Your task to perform on an android device: Go to notification settings Image 0: 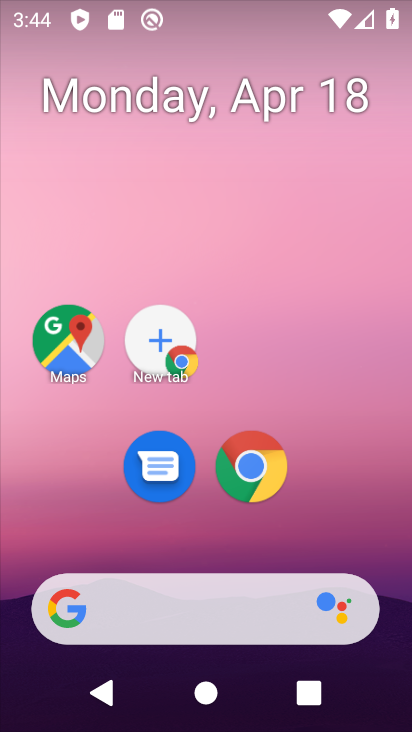
Step 0: drag from (391, 608) to (305, 6)
Your task to perform on an android device: Go to notification settings Image 1: 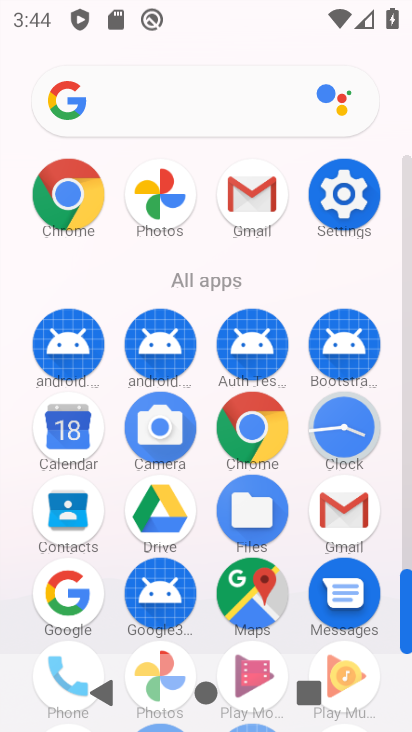
Step 1: click (5, 248)
Your task to perform on an android device: Go to notification settings Image 2: 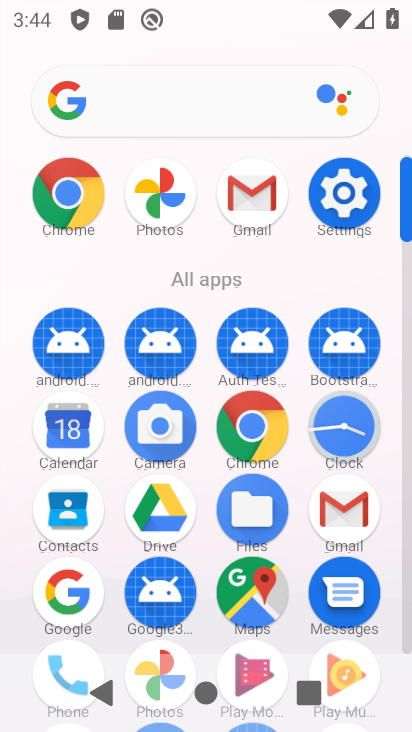
Step 2: click (345, 190)
Your task to perform on an android device: Go to notification settings Image 3: 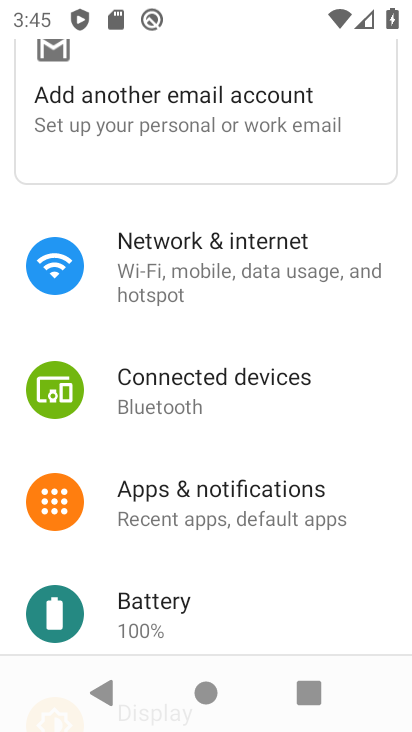
Step 3: click (280, 506)
Your task to perform on an android device: Go to notification settings Image 4: 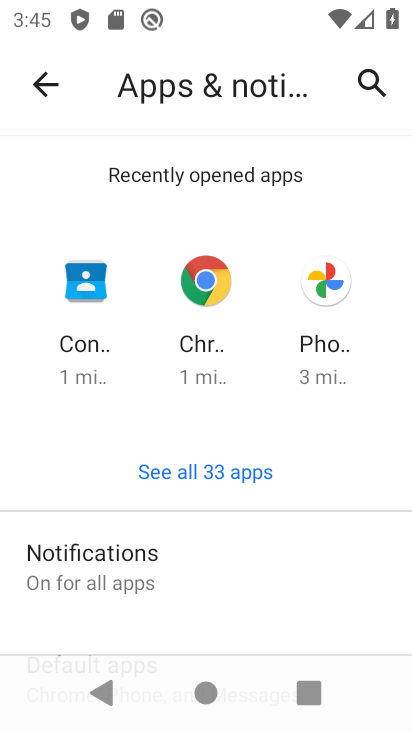
Step 4: drag from (280, 560) to (275, 203)
Your task to perform on an android device: Go to notification settings Image 5: 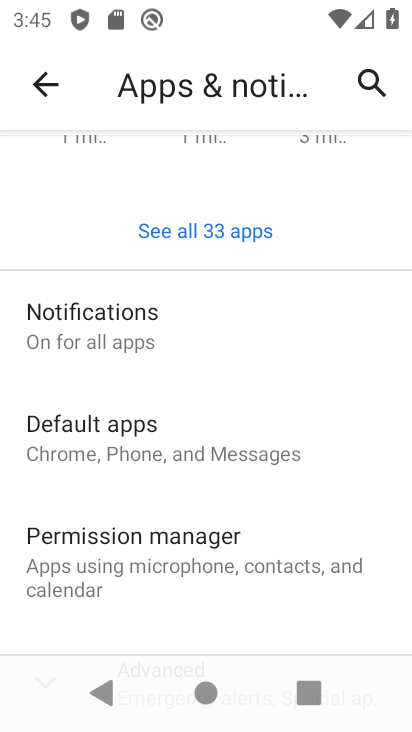
Step 5: click (158, 330)
Your task to perform on an android device: Go to notification settings Image 6: 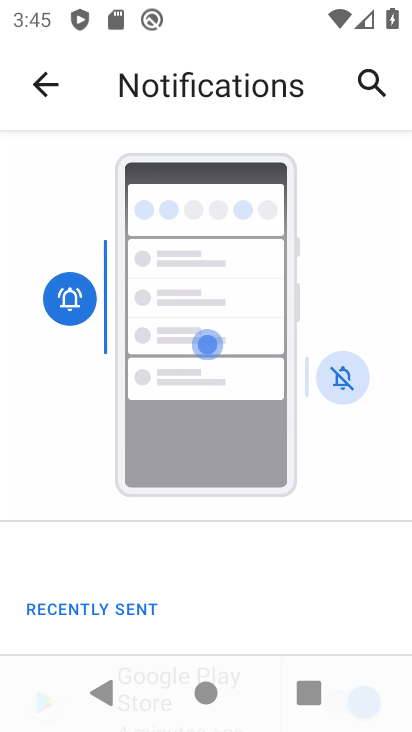
Step 6: drag from (234, 613) to (221, 231)
Your task to perform on an android device: Go to notification settings Image 7: 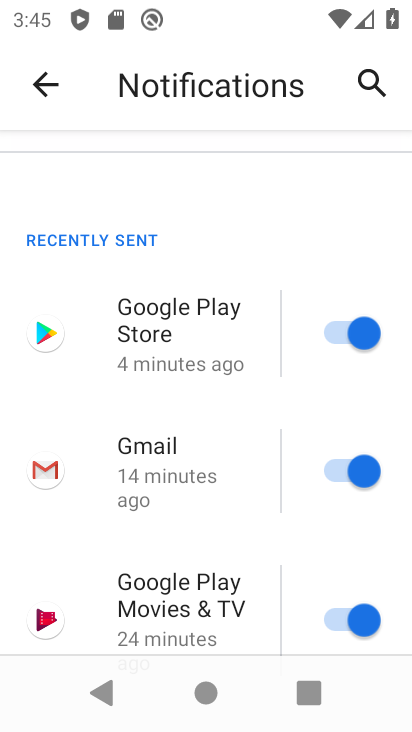
Step 7: drag from (246, 492) to (229, 163)
Your task to perform on an android device: Go to notification settings Image 8: 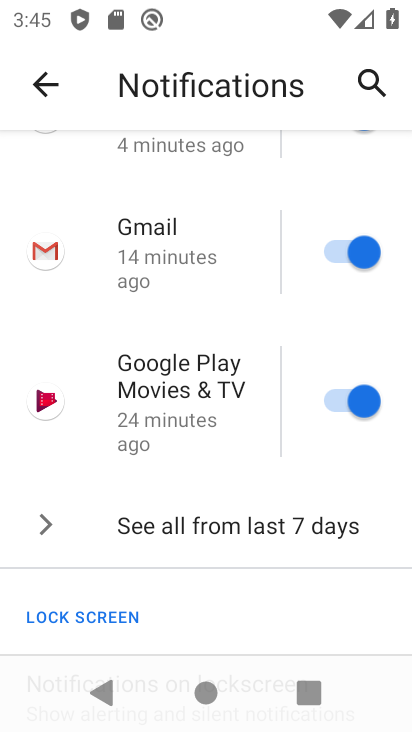
Step 8: drag from (223, 404) to (231, 150)
Your task to perform on an android device: Go to notification settings Image 9: 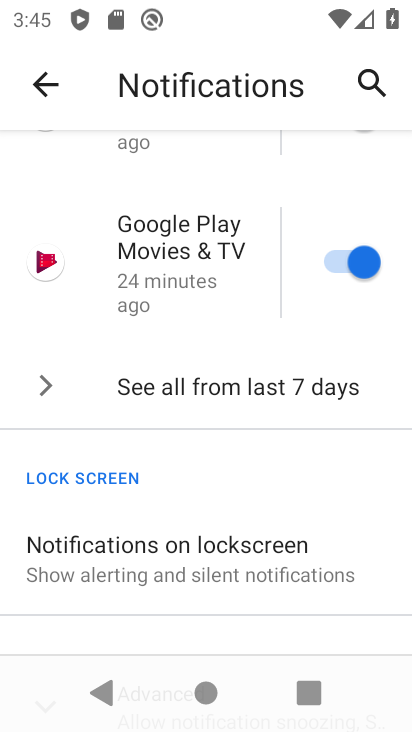
Step 9: drag from (234, 545) to (206, 317)
Your task to perform on an android device: Go to notification settings Image 10: 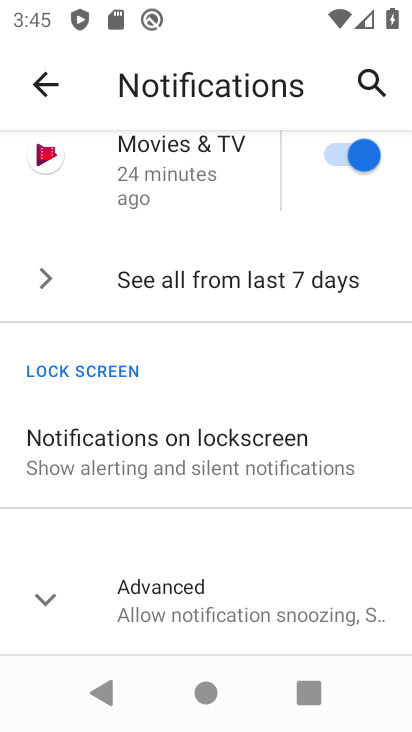
Step 10: click (40, 608)
Your task to perform on an android device: Go to notification settings Image 11: 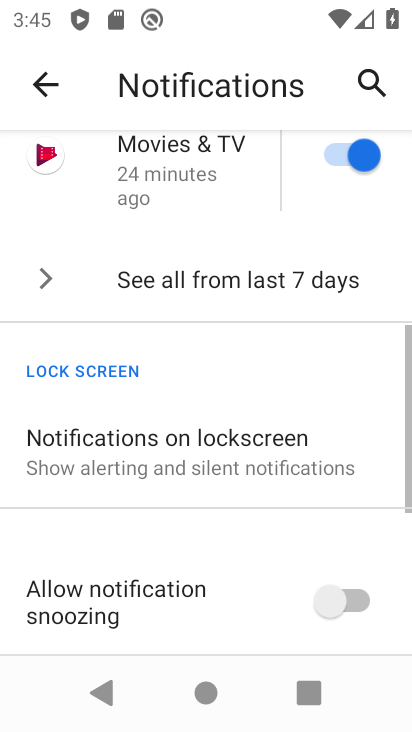
Step 11: task complete